Your task to perform on an android device: turn off data saver in the chrome app Image 0: 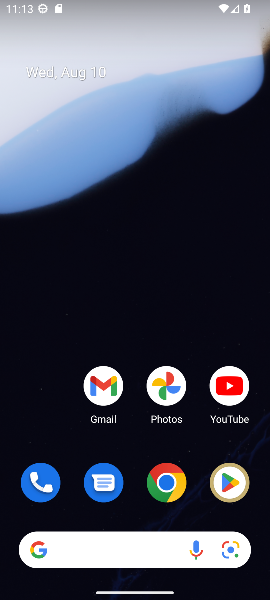
Step 0: click (177, 484)
Your task to perform on an android device: turn off data saver in the chrome app Image 1: 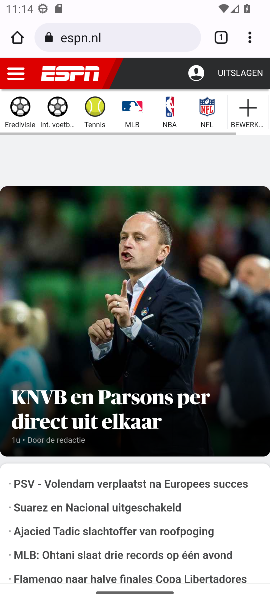
Step 1: task complete